Your task to perform on an android device: manage bookmarks in the chrome app Image 0: 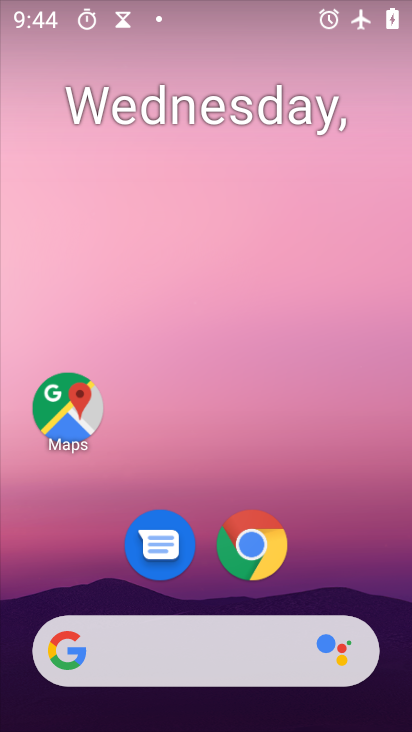
Step 0: press home button
Your task to perform on an android device: manage bookmarks in the chrome app Image 1: 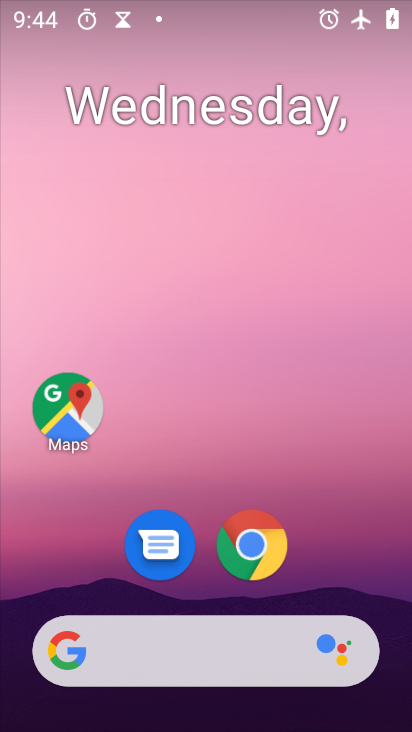
Step 1: click (246, 561)
Your task to perform on an android device: manage bookmarks in the chrome app Image 2: 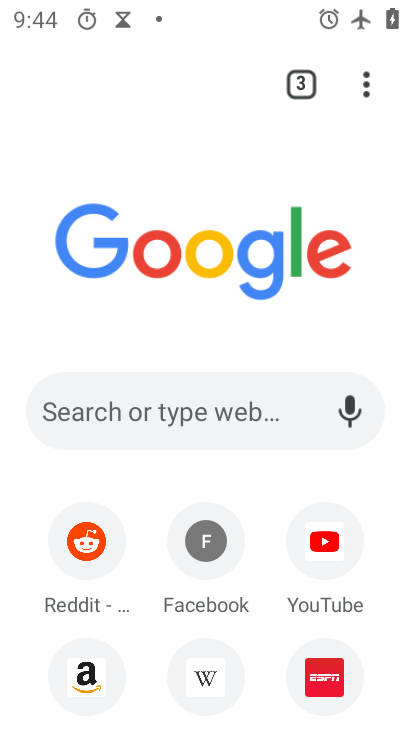
Step 2: drag from (361, 96) to (178, 318)
Your task to perform on an android device: manage bookmarks in the chrome app Image 3: 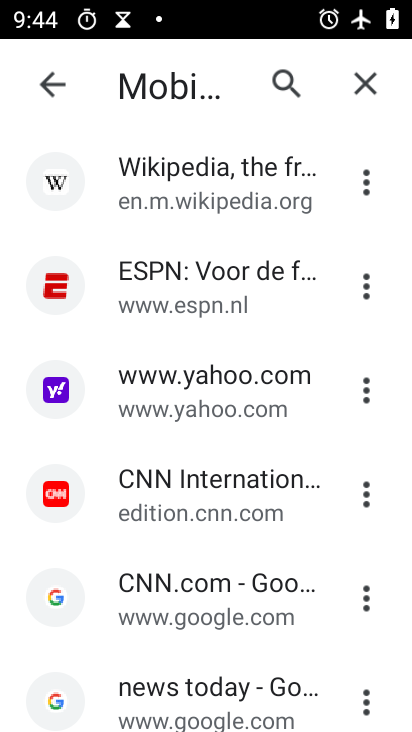
Step 3: click (369, 189)
Your task to perform on an android device: manage bookmarks in the chrome app Image 4: 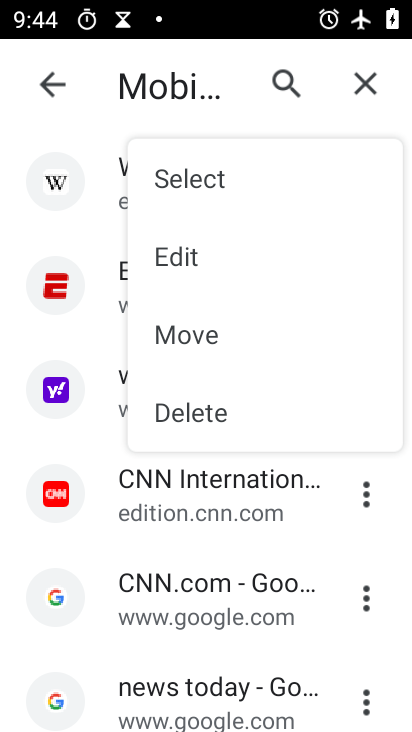
Step 4: click (221, 412)
Your task to perform on an android device: manage bookmarks in the chrome app Image 5: 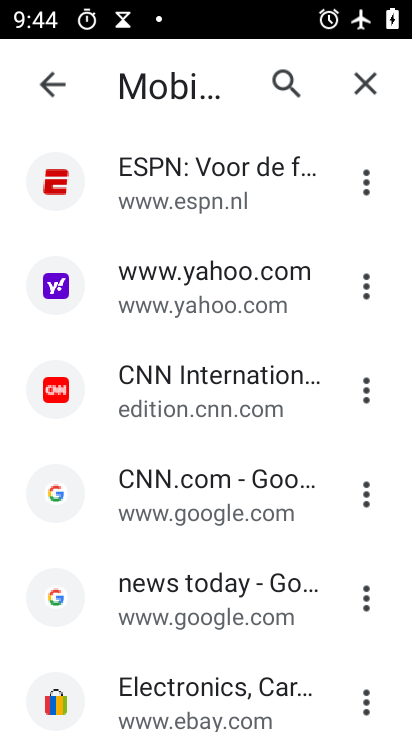
Step 5: task complete